Your task to perform on an android device: Open calendar and show me the second week of next month Image 0: 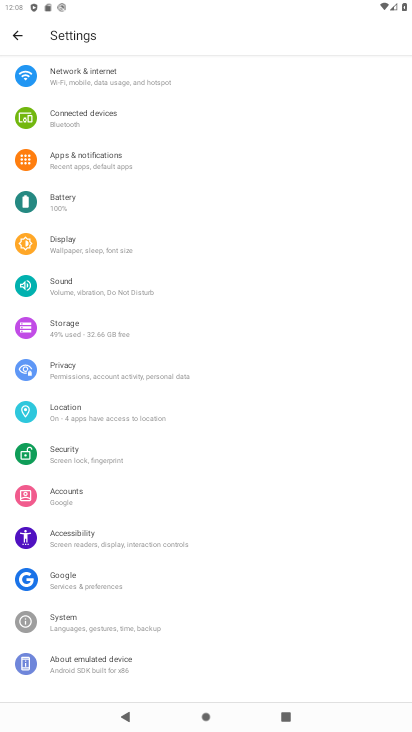
Step 0: press home button
Your task to perform on an android device: Open calendar and show me the second week of next month Image 1: 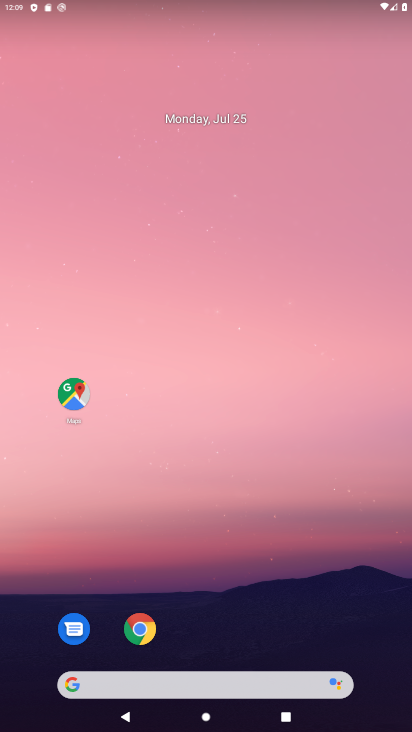
Step 1: drag from (265, 623) to (209, 75)
Your task to perform on an android device: Open calendar and show me the second week of next month Image 2: 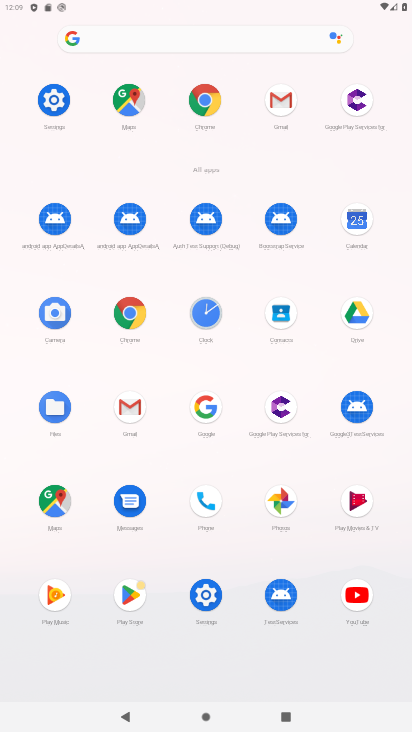
Step 2: click (353, 221)
Your task to perform on an android device: Open calendar and show me the second week of next month Image 3: 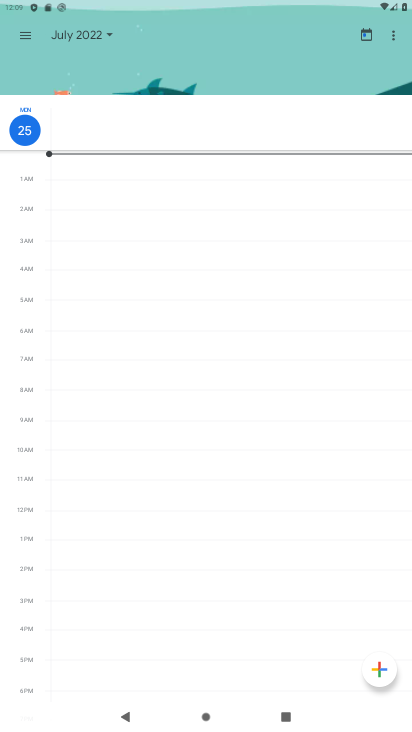
Step 3: click (27, 36)
Your task to perform on an android device: Open calendar and show me the second week of next month Image 4: 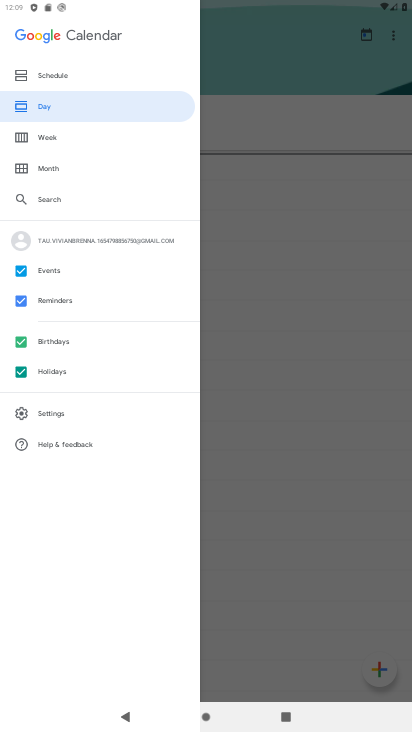
Step 4: click (68, 139)
Your task to perform on an android device: Open calendar and show me the second week of next month Image 5: 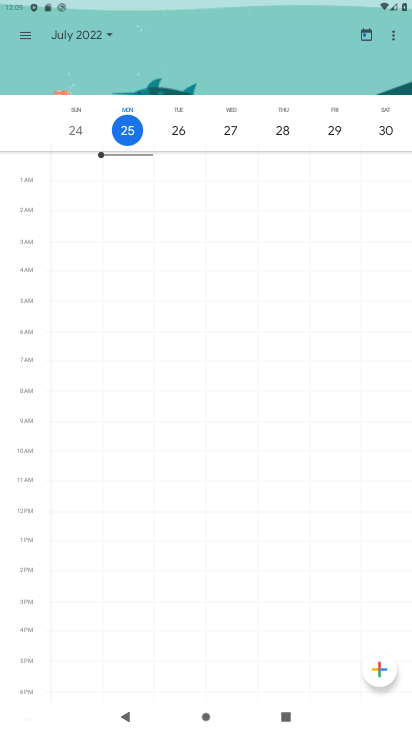
Step 5: click (104, 38)
Your task to perform on an android device: Open calendar and show me the second week of next month Image 6: 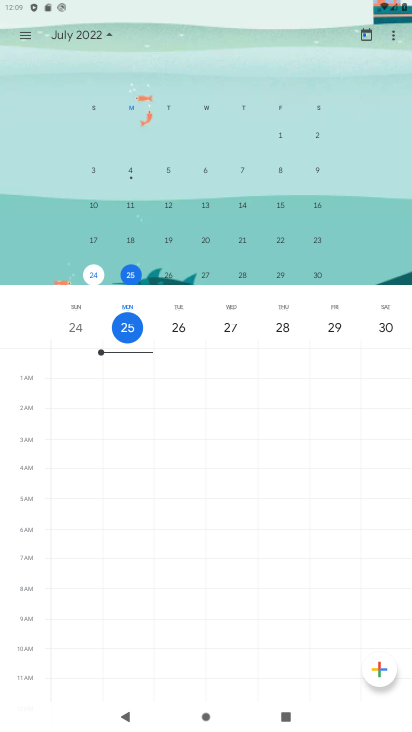
Step 6: drag from (356, 201) to (79, 214)
Your task to perform on an android device: Open calendar and show me the second week of next month Image 7: 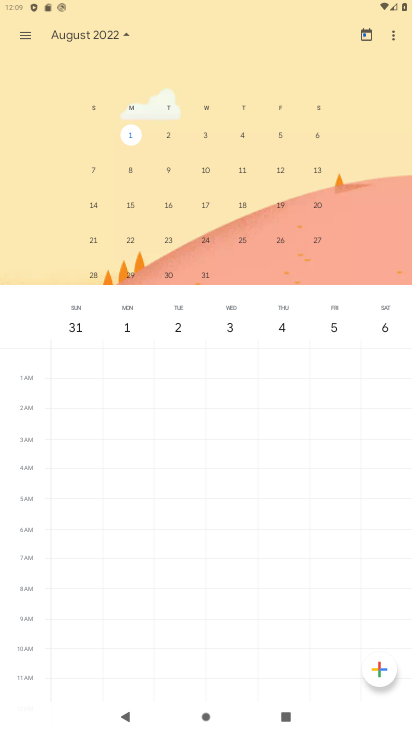
Step 7: click (213, 163)
Your task to perform on an android device: Open calendar and show me the second week of next month Image 8: 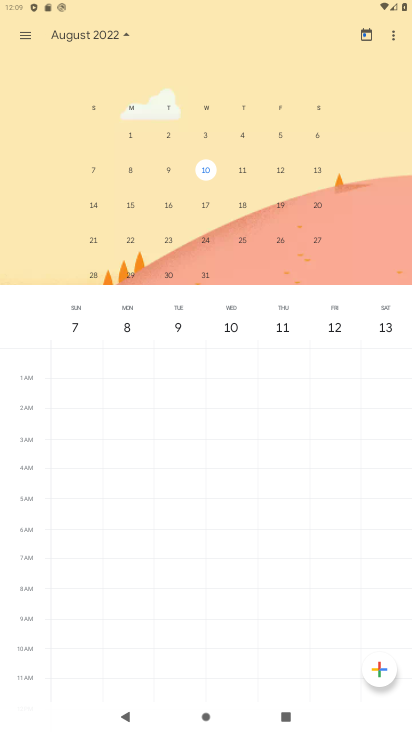
Step 8: task complete